Your task to perform on an android device: remove spam from my inbox in the gmail app Image 0: 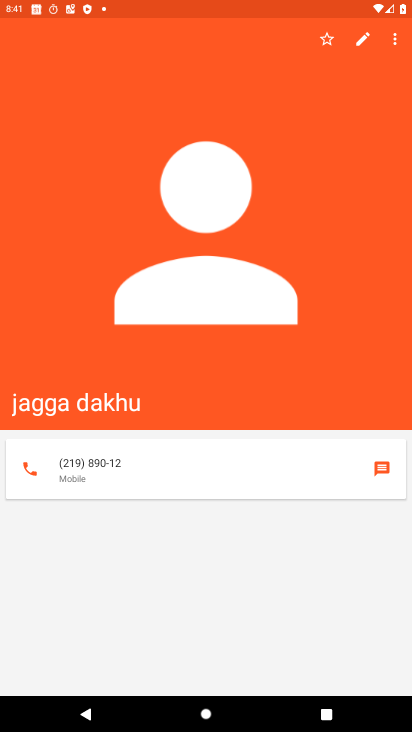
Step 0: press home button
Your task to perform on an android device: remove spam from my inbox in the gmail app Image 1: 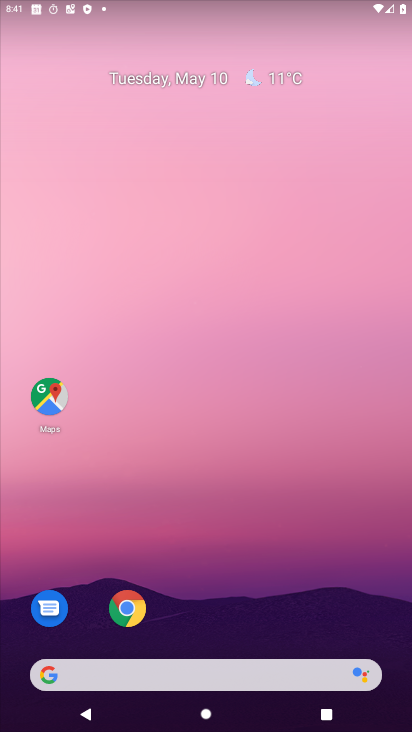
Step 1: drag from (185, 651) to (189, 506)
Your task to perform on an android device: remove spam from my inbox in the gmail app Image 2: 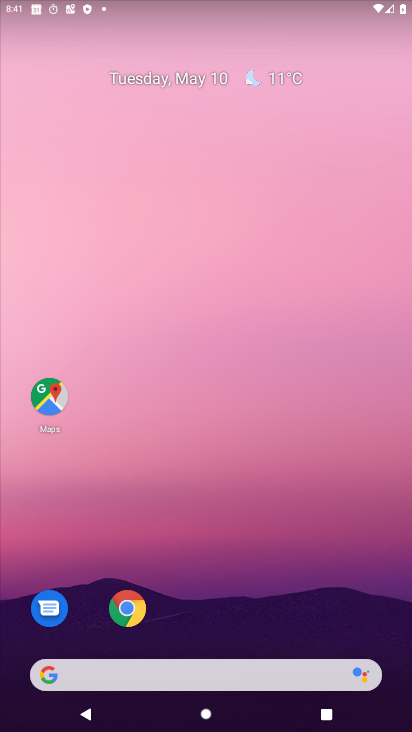
Step 2: click (189, 506)
Your task to perform on an android device: remove spam from my inbox in the gmail app Image 3: 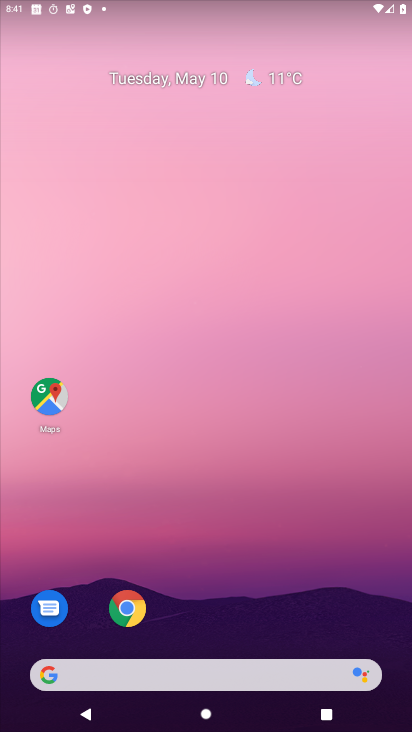
Step 3: drag from (148, 664) to (155, 433)
Your task to perform on an android device: remove spam from my inbox in the gmail app Image 4: 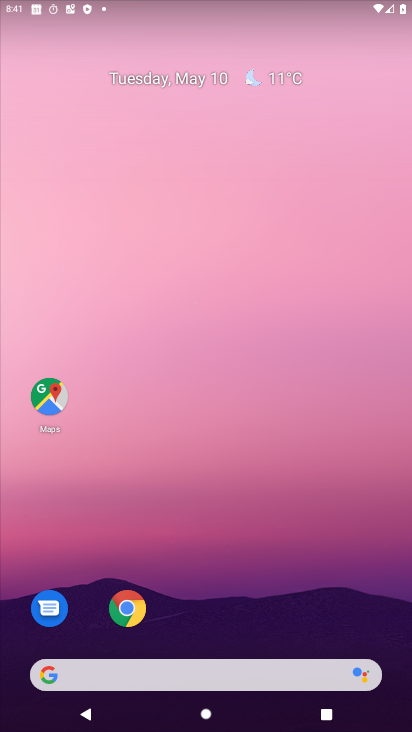
Step 4: drag from (222, 675) to (221, 379)
Your task to perform on an android device: remove spam from my inbox in the gmail app Image 5: 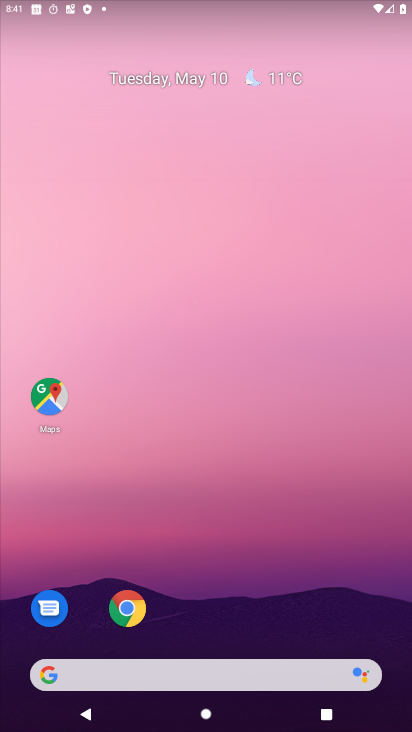
Step 5: drag from (201, 671) to (193, 326)
Your task to perform on an android device: remove spam from my inbox in the gmail app Image 6: 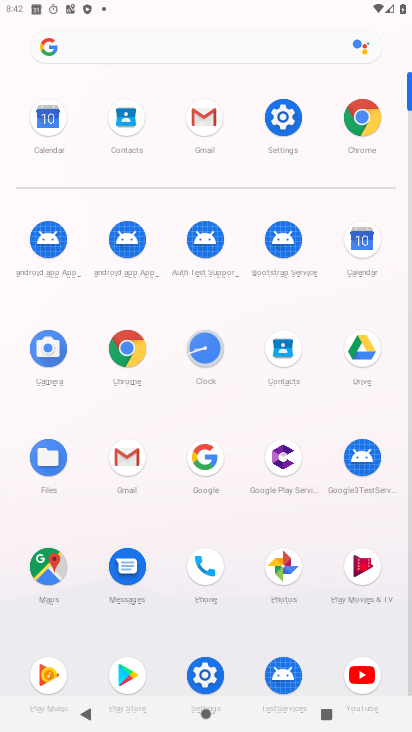
Step 6: click (135, 461)
Your task to perform on an android device: remove spam from my inbox in the gmail app Image 7: 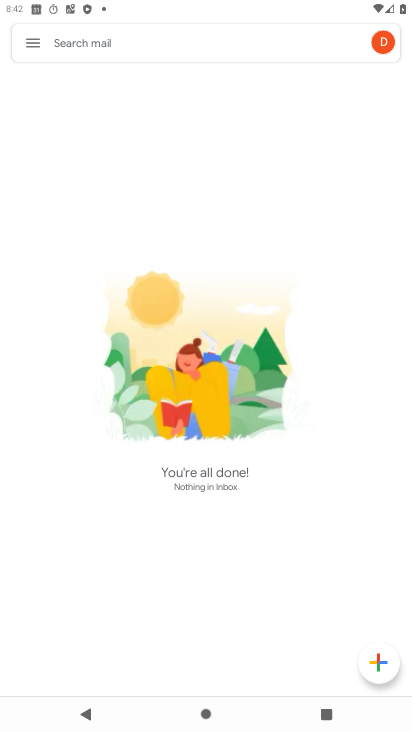
Step 7: click (33, 38)
Your task to perform on an android device: remove spam from my inbox in the gmail app Image 8: 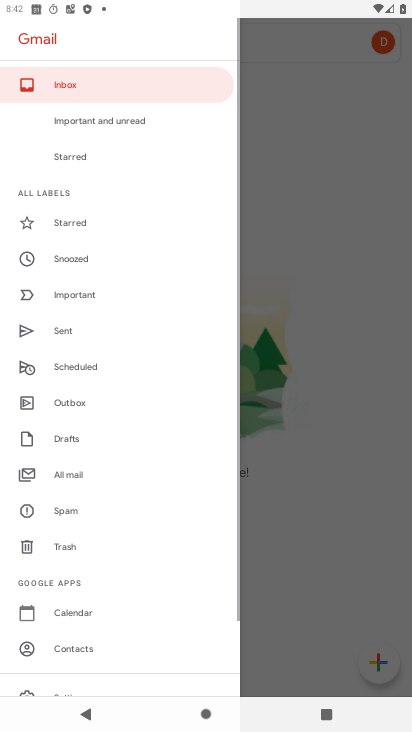
Step 8: click (33, 38)
Your task to perform on an android device: remove spam from my inbox in the gmail app Image 9: 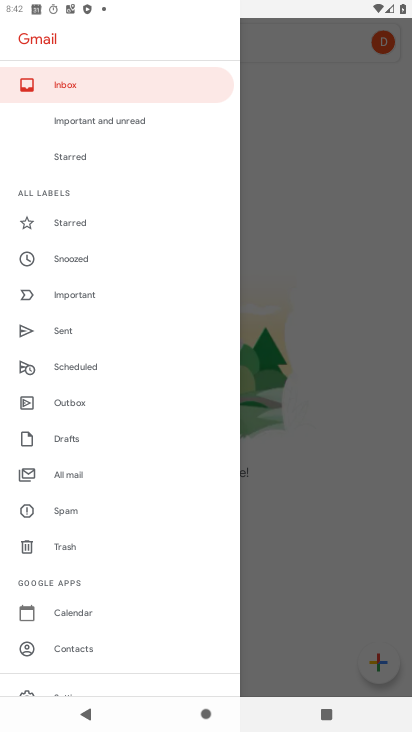
Step 9: click (72, 236)
Your task to perform on an android device: remove spam from my inbox in the gmail app Image 10: 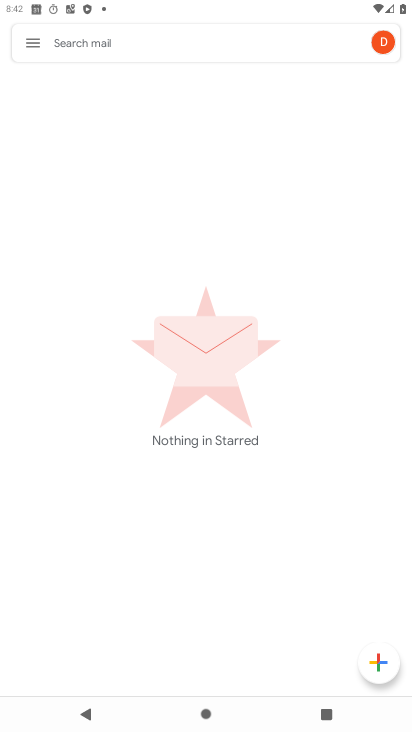
Step 10: click (38, 47)
Your task to perform on an android device: remove spam from my inbox in the gmail app Image 11: 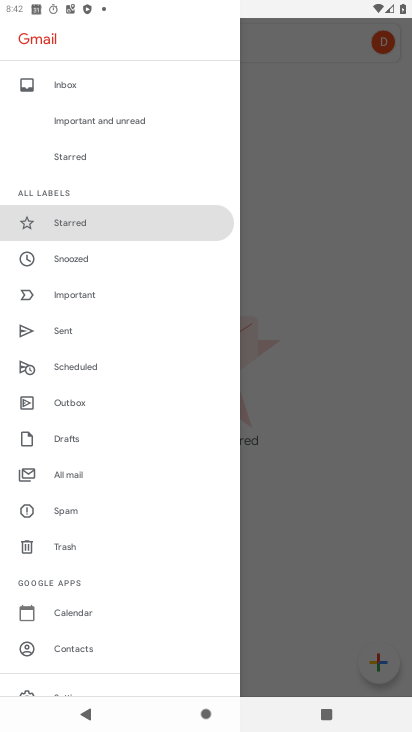
Step 11: click (41, 246)
Your task to perform on an android device: remove spam from my inbox in the gmail app Image 12: 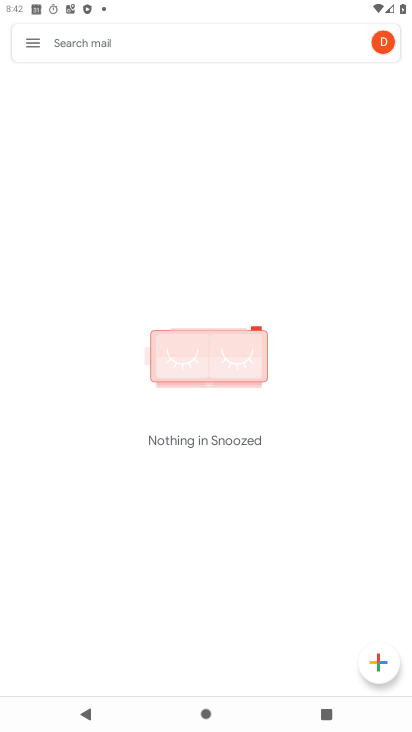
Step 12: task complete